Your task to perform on an android device: See recent photos Image 0: 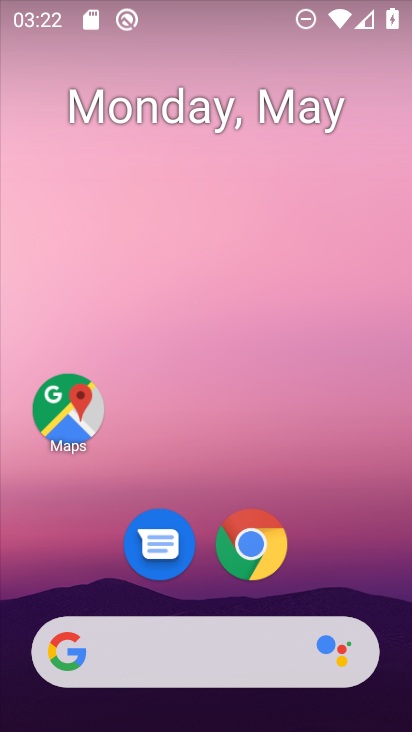
Step 0: drag from (380, 603) to (367, 203)
Your task to perform on an android device: See recent photos Image 1: 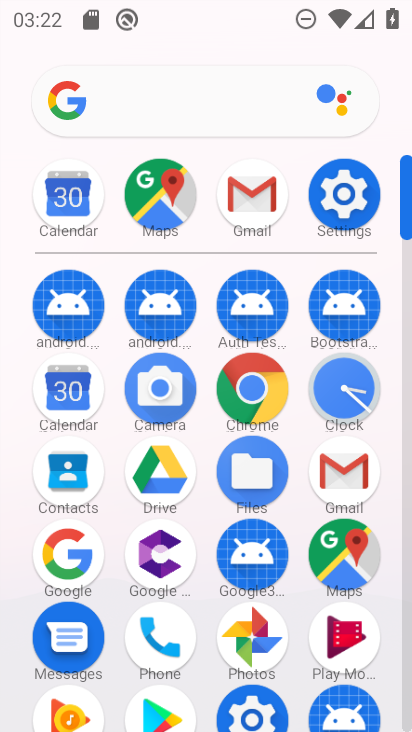
Step 1: click (269, 635)
Your task to perform on an android device: See recent photos Image 2: 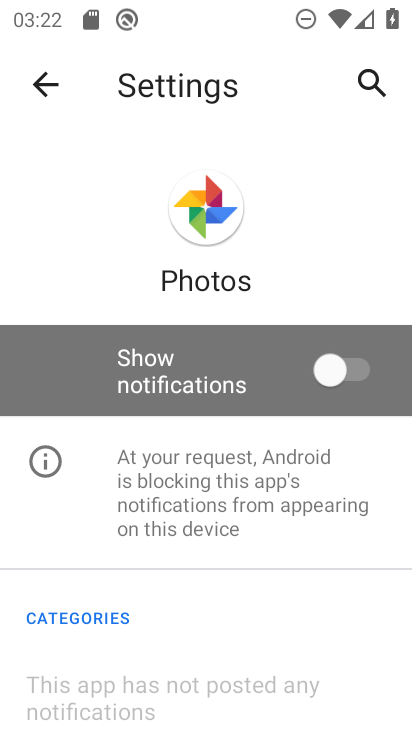
Step 2: click (43, 94)
Your task to perform on an android device: See recent photos Image 3: 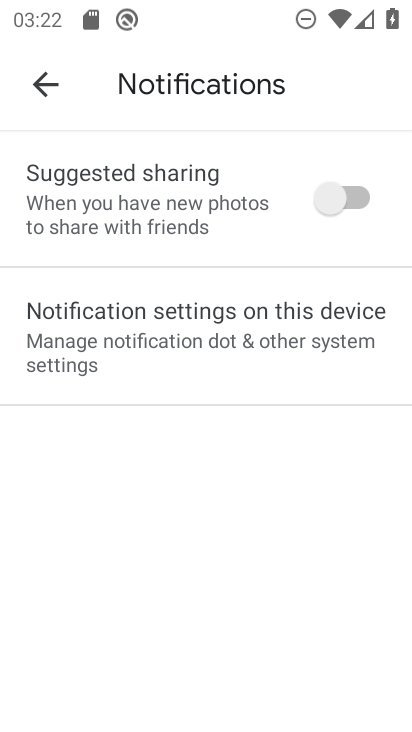
Step 3: click (43, 94)
Your task to perform on an android device: See recent photos Image 4: 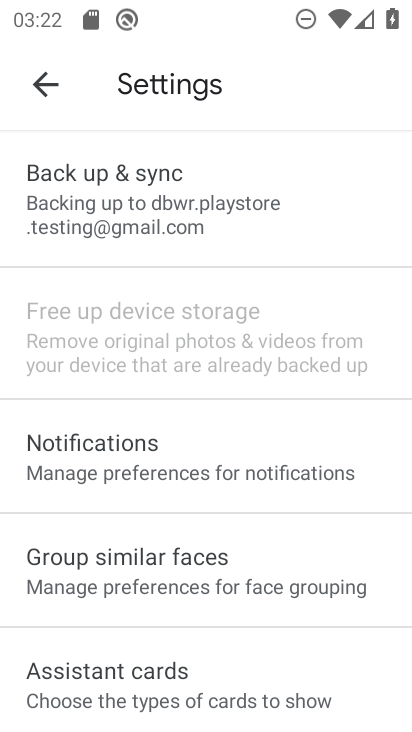
Step 4: click (43, 94)
Your task to perform on an android device: See recent photos Image 5: 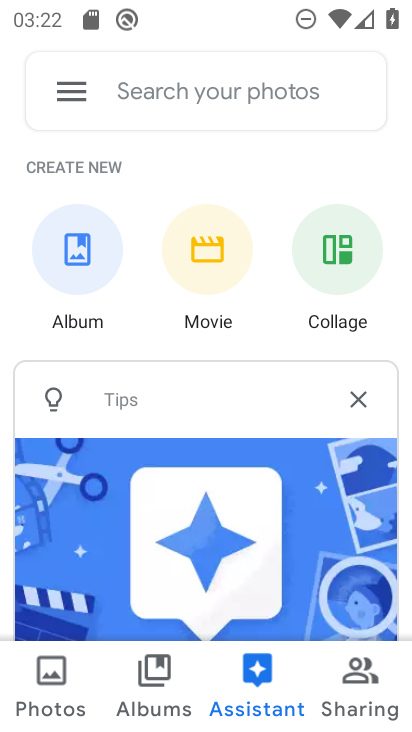
Step 5: click (54, 686)
Your task to perform on an android device: See recent photos Image 6: 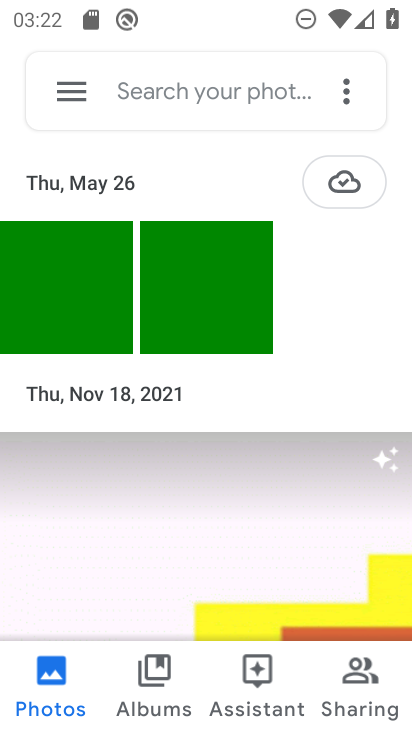
Step 6: click (97, 301)
Your task to perform on an android device: See recent photos Image 7: 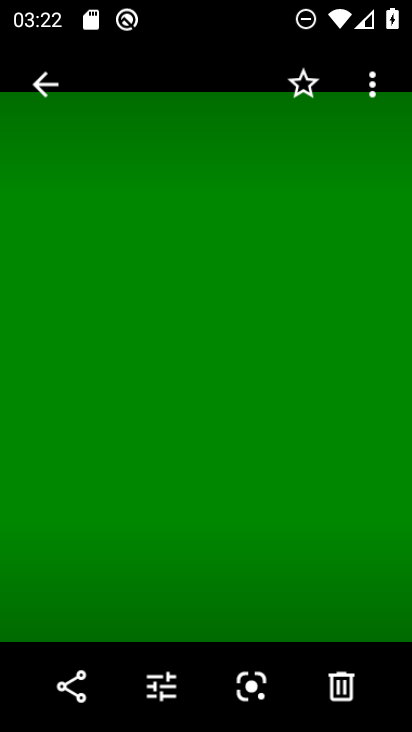
Step 7: task complete